Your task to perform on an android device: Search for Italian restaurants on Maps Image 0: 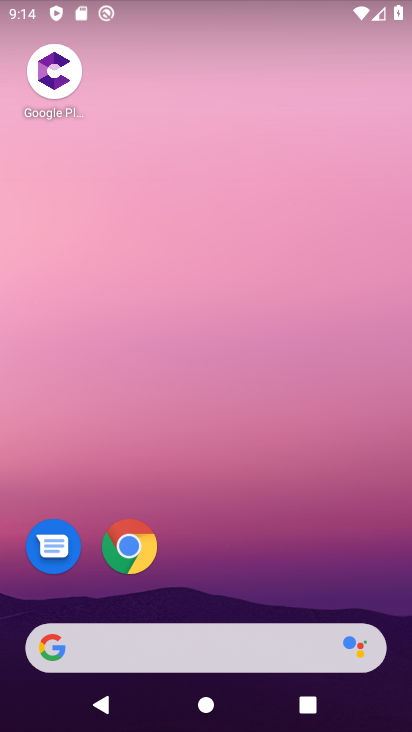
Step 0: drag from (276, 551) to (226, 0)
Your task to perform on an android device: Search for Italian restaurants on Maps Image 1: 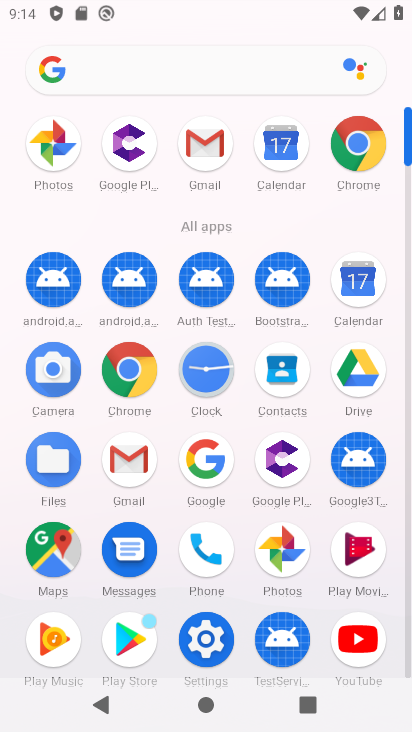
Step 1: click (52, 549)
Your task to perform on an android device: Search for Italian restaurants on Maps Image 2: 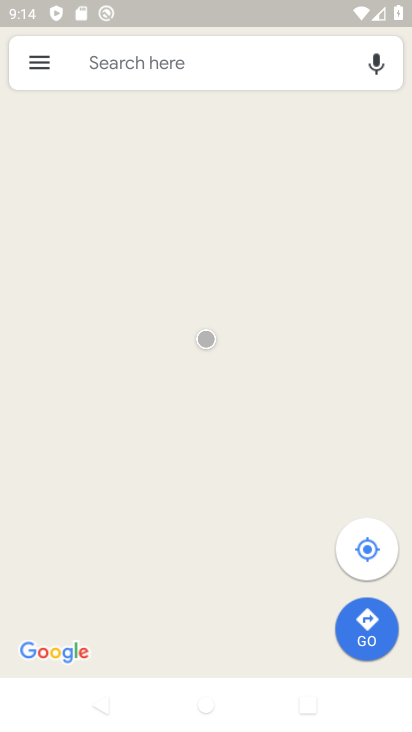
Step 2: click (139, 70)
Your task to perform on an android device: Search for Italian restaurants on Maps Image 3: 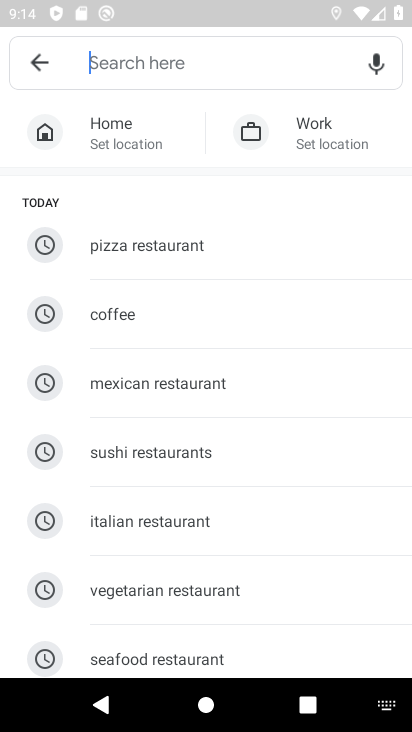
Step 3: type "italian restaurants"
Your task to perform on an android device: Search for Italian restaurants on Maps Image 4: 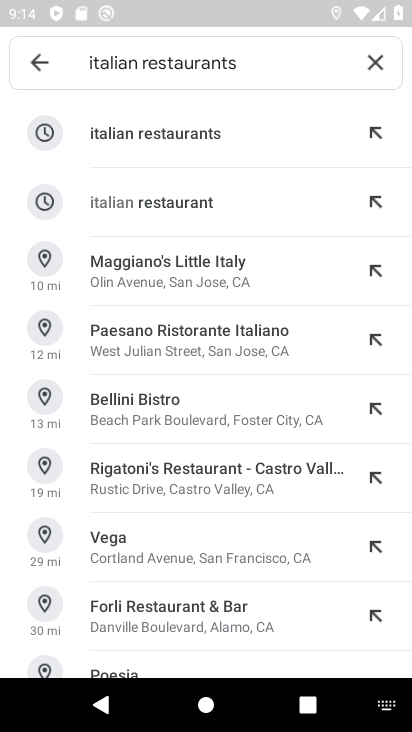
Step 4: click (96, 138)
Your task to perform on an android device: Search for Italian restaurants on Maps Image 5: 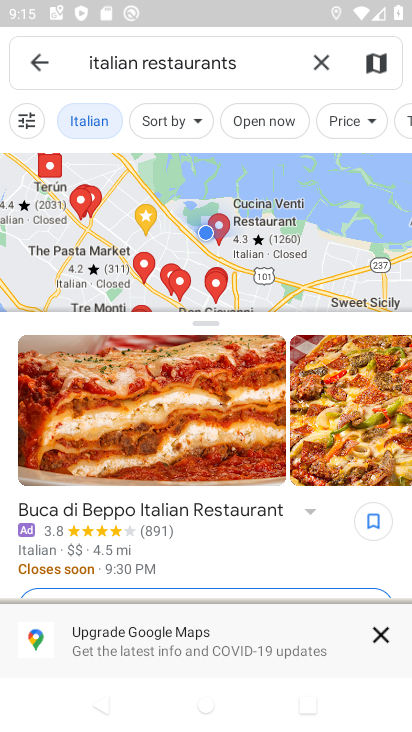
Step 5: task complete